Your task to perform on an android device: uninstall "WhatsApp Messenger" Image 0: 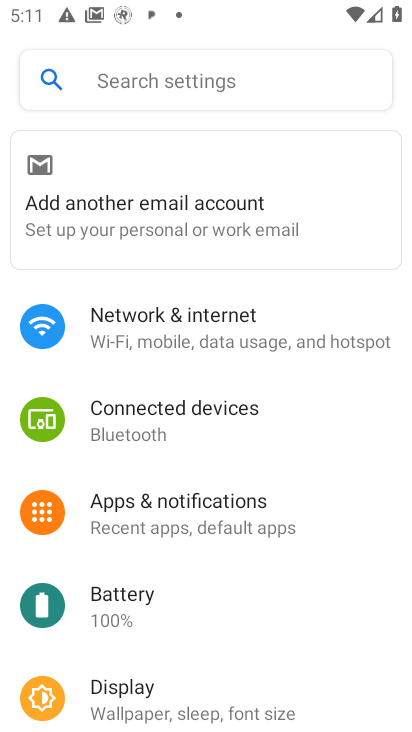
Step 0: press home button
Your task to perform on an android device: uninstall "WhatsApp Messenger" Image 1: 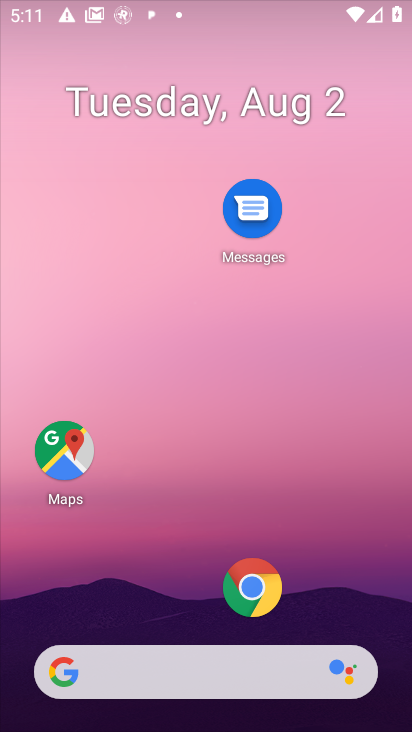
Step 1: drag from (177, 580) to (164, 142)
Your task to perform on an android device: uninstall "WhatsApp Messenger" Image 2: 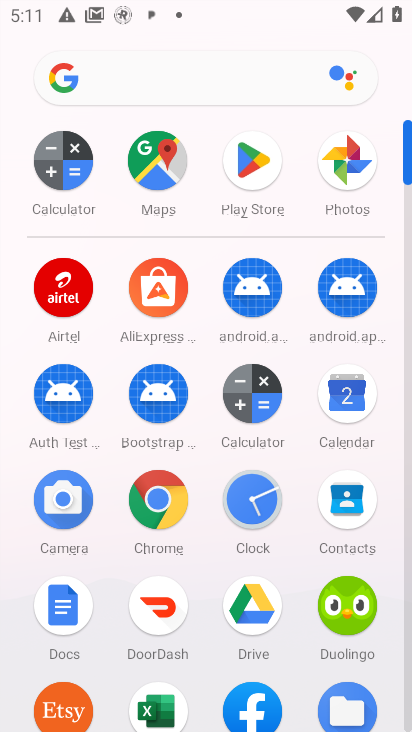
Step 2: click (243, 177)
Your task to perform on an android device: uninstall "WhatsApp Messenger" Image 3: 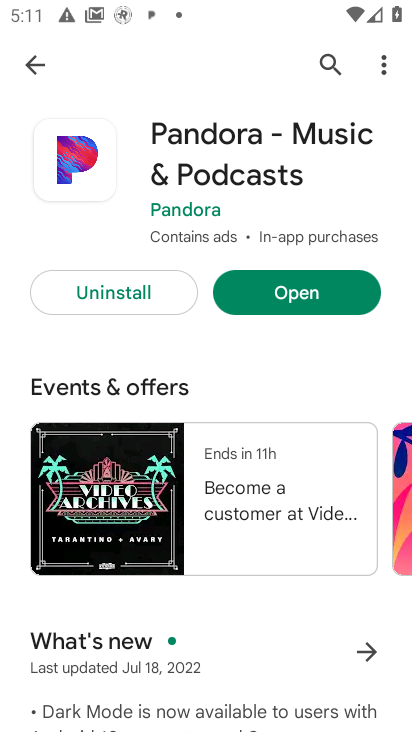
Step 3: click (324, 67)
Your task to perform on an android device: uninstall "WhatsApp Messenger" Image 4: 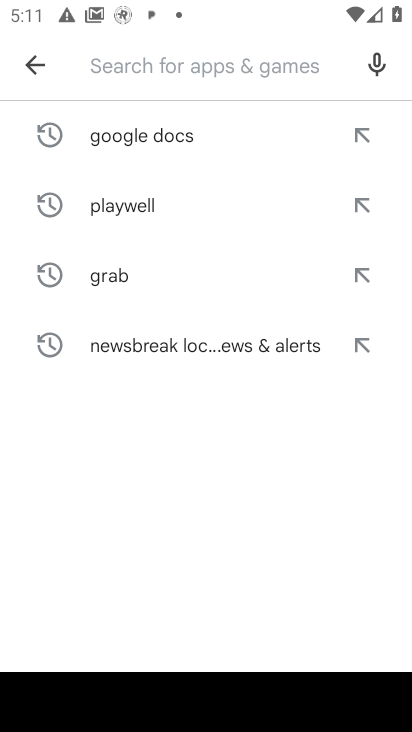
Step 4: type "WhatsApp Messenger"
Your task to perform on an android device: uninstall "WhatsApp Messenger" Image 5: 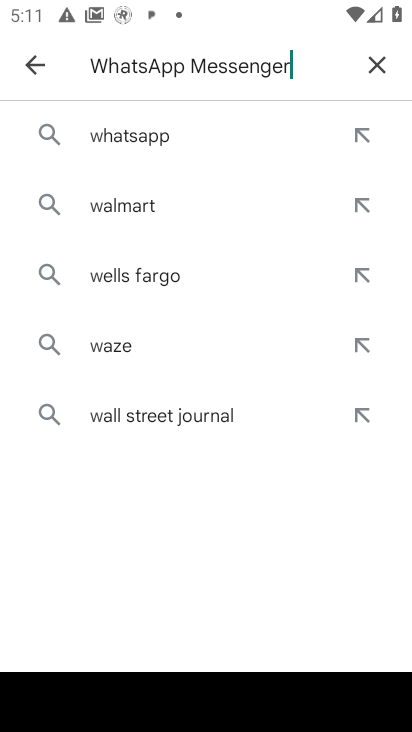
Step 5: type ""
Your task to perform on an android device: uninstall "WhatsApp Messenger" Image 6: 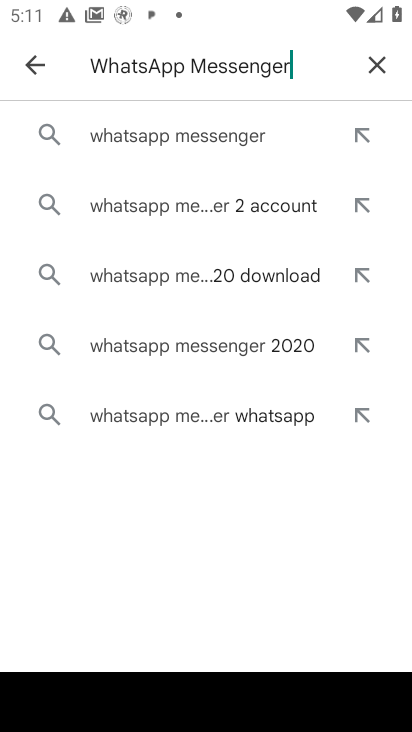
Step 6: click (170, 142)
Your task to perform on an android device: uninstall "WhatsApp Messenger" Image 7: 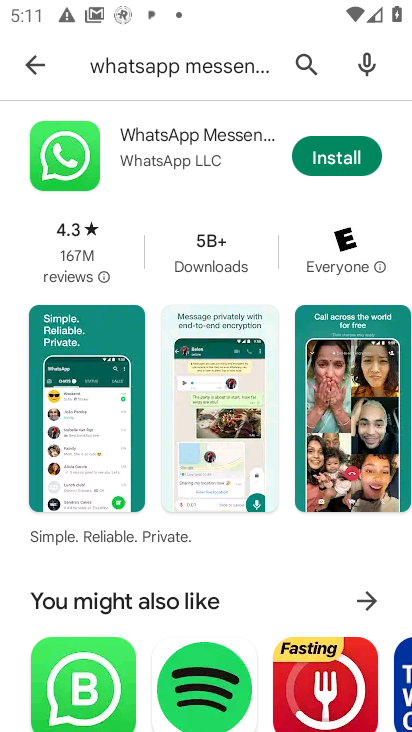
Step 7: task complete